Your task to perform on an android device: Go to battery settings Image 0: 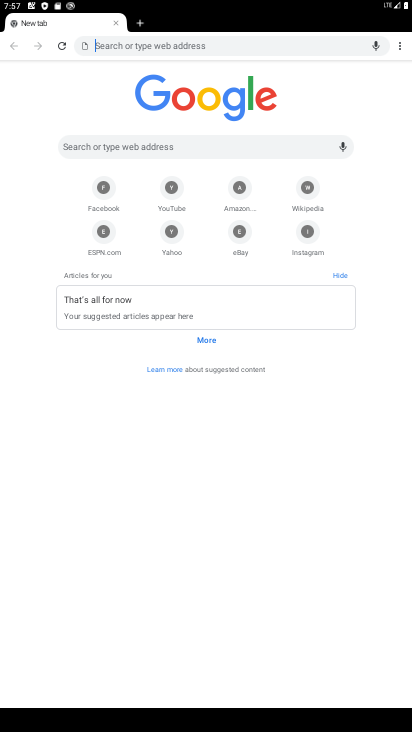
Step 0: press home button
Your task to perform on an android device: Go to battery settings Image 1: 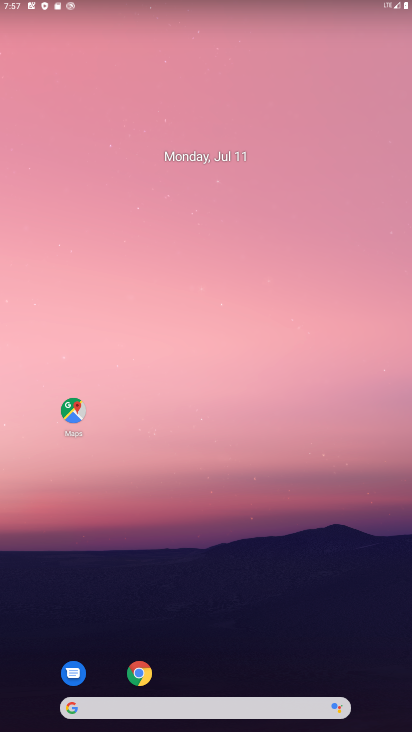
Step 1: drag from (199, 686) to (213, 229)
Your task to perform on an android device: Go to battery settings Image 2: 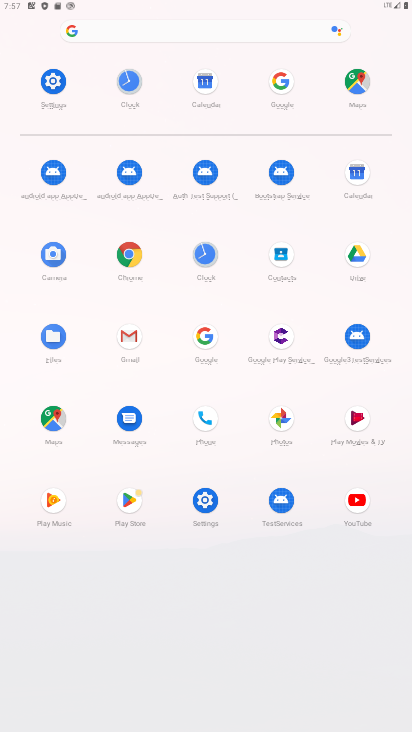
Step 2: click (51, 86)
Your task to perform on an android device: Go to battery settings Image 3: 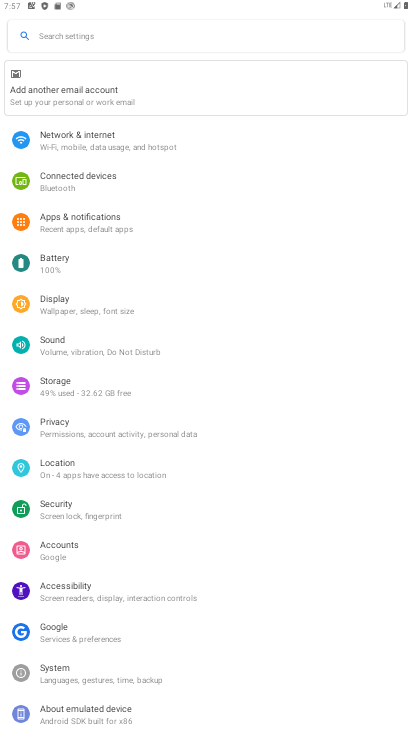
Step 3: click (42, 266)
Your task to perform on an android device: Go to battery settings Image 4: 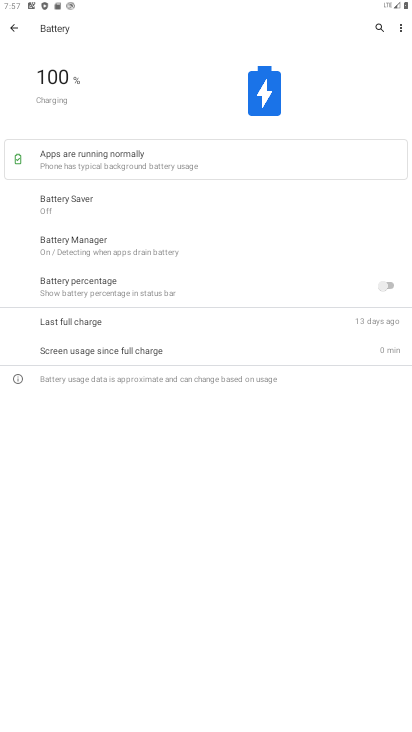
Step 4: click (397, 27)
Your task to perform on an android device: Go to battery settings Image 5: 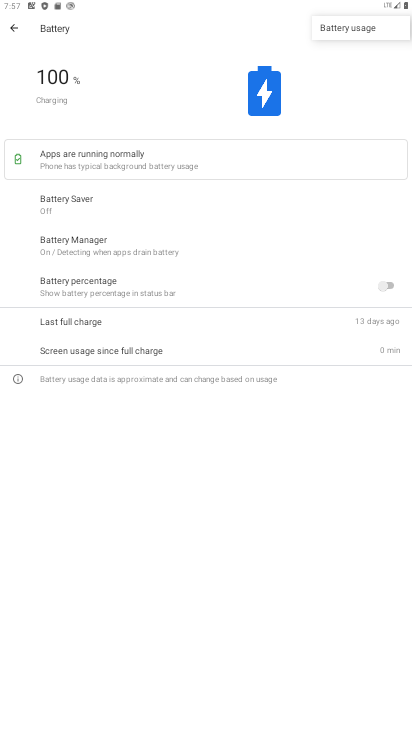
Step 5: click (349, 27)
Your task to perform on an android device: Go to battery settings Image 6: 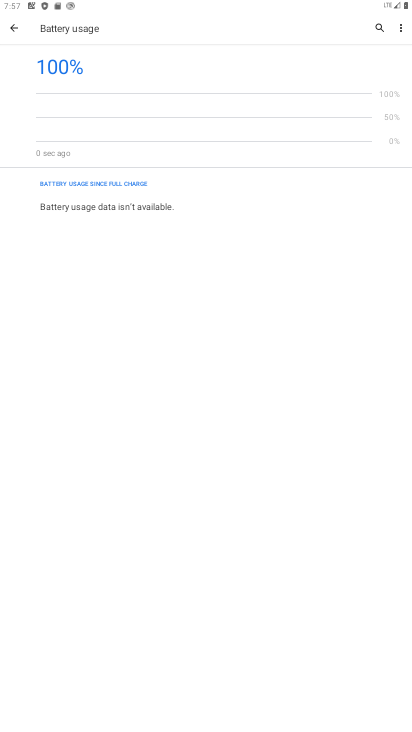
Step 6: task complete